Your task to perform on an android device: open a bookmark in the chrome app Image 0: 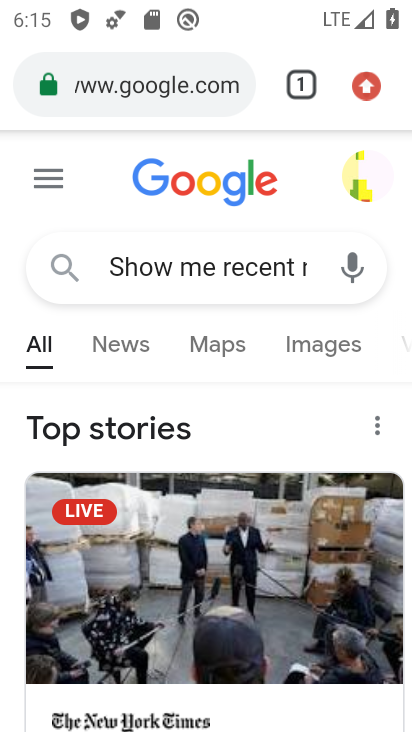
Step 0: press home button
Your task to perform on an android device: open a bookmark in the chrome app Image 1: 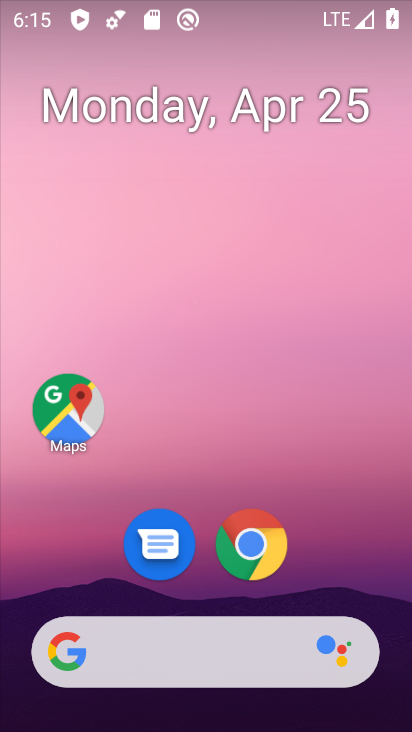
Step 1: click (242, 552)
Your task to perform on an android device: open a bookmark in the chrome app Image 2: 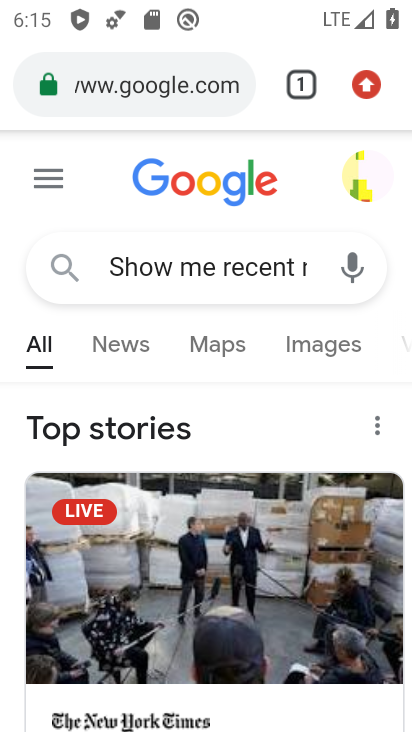
Step 2: task complete